Your task to perform on an android device: turn off data saver in the chrome app Image 0: 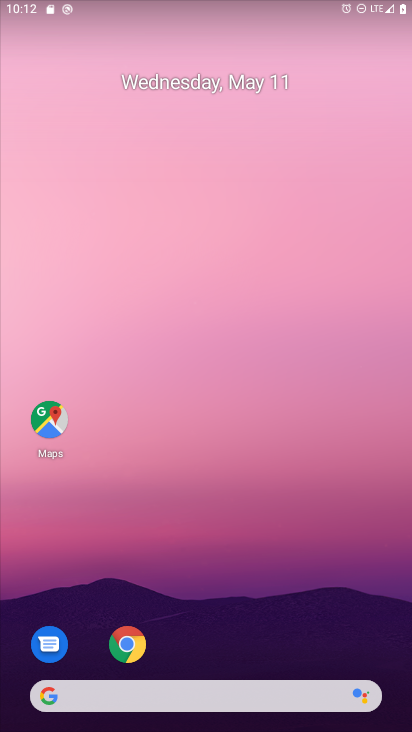
Step 0: click (126, 647)
Your task to perform on an android device: turn off data saver in the chrome app Image 1: 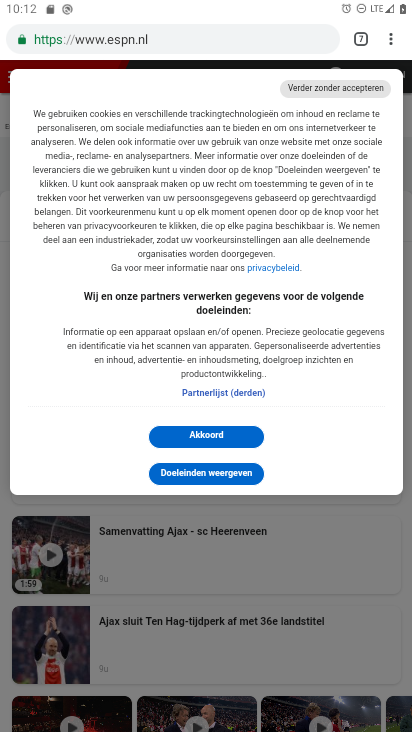
Step 1: click (391, 38)
Your task to perform on an android device: turn off data saver in the chrome app Image 2: 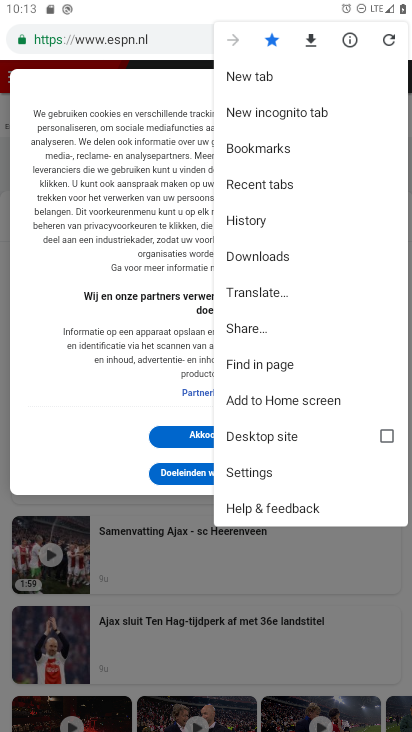
Step 2: click (255, 473)
Your task to perform on an android device: turn off data saver in the chrome app Image 3: 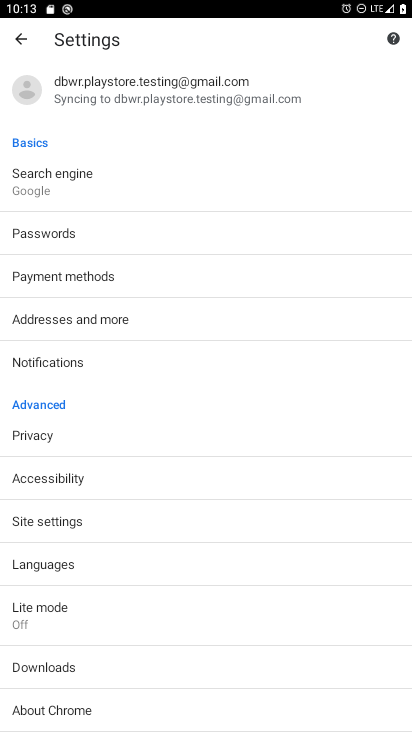
Step 3: click (39, 600)
Your task to perform on an android device: turn off data saver in the chrome app Image 4: 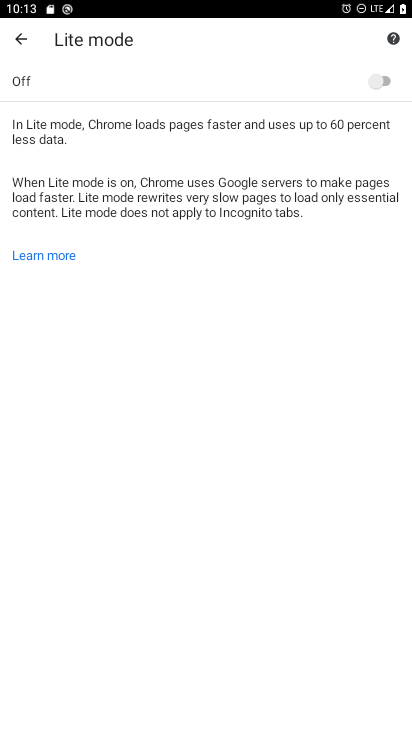
Step 4: task complete